Your task to perform on an android device: clear all cookies in the chrome app Image 0: 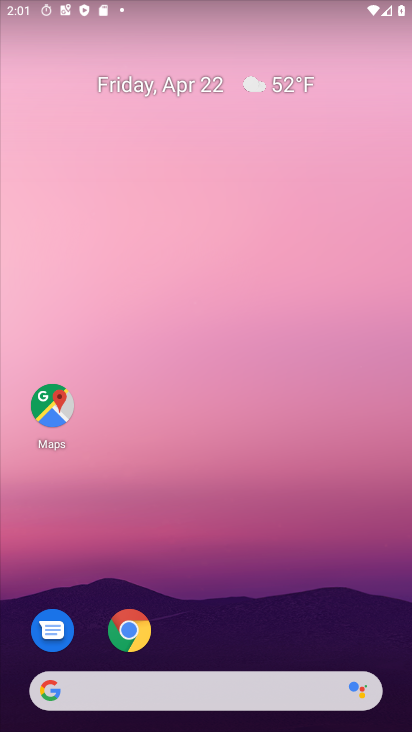
Step 0: click (127, 624)
Your task to perform on an android device: clear all cookies in the chrome app Image 1: 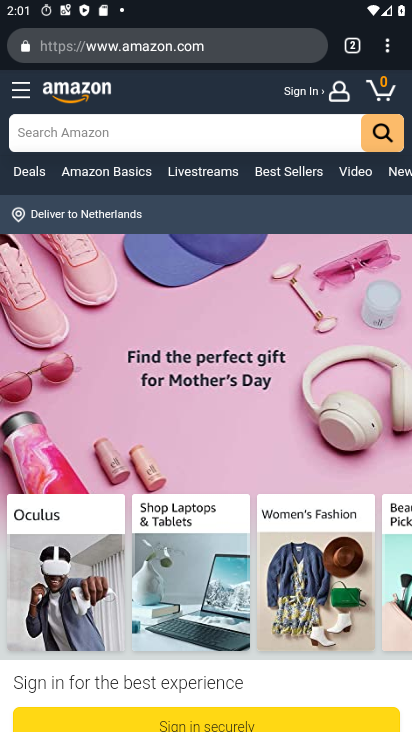
Step 1: click (384, 36)
Your task to perform on an android device: clear all cookies in the chrome app Image 2: 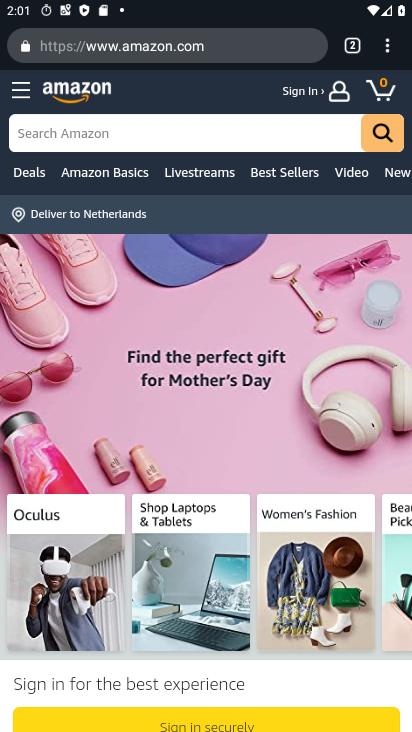
Step 2: click (388, 41)
Your task to perform on an android device: clear all cookies in the chrome app Image 3: 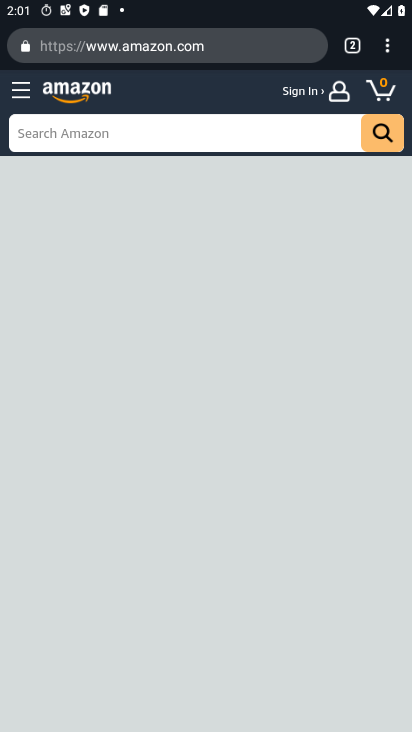
Step 3: click (388, 41)
Your task to perform on an android device: clear all cookies in the chrome app Image 4: 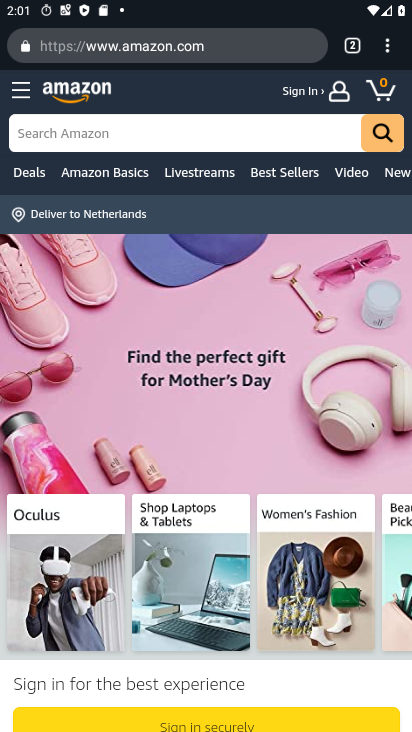
Step 4: click (384, 47)
Your task to perform on an android device: clear all cookies in the chrome app Image 5: 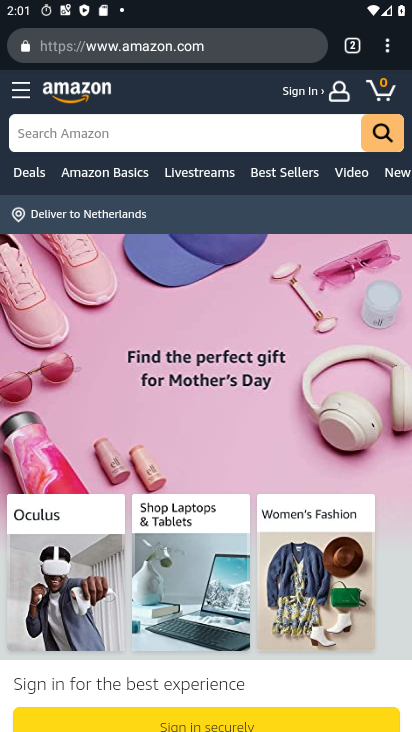
Step 5: click (384, 47)
Your task to perform on an android device: clear all cookies in the chrome app Image 6: 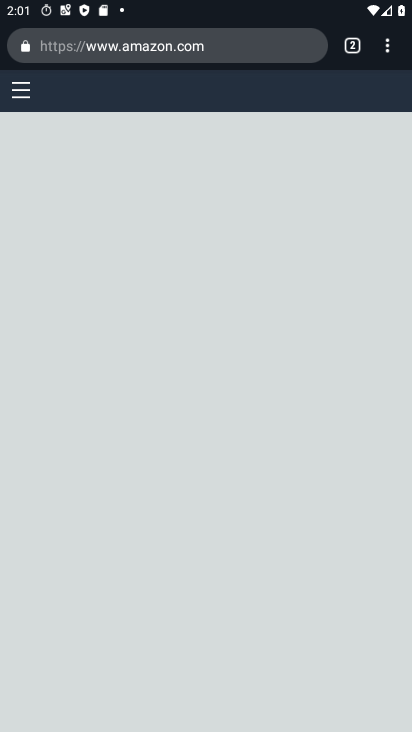
Step 6: click (384, 47)
Your task to perform on an android device: clear all cookies in the chrome app Image 7: 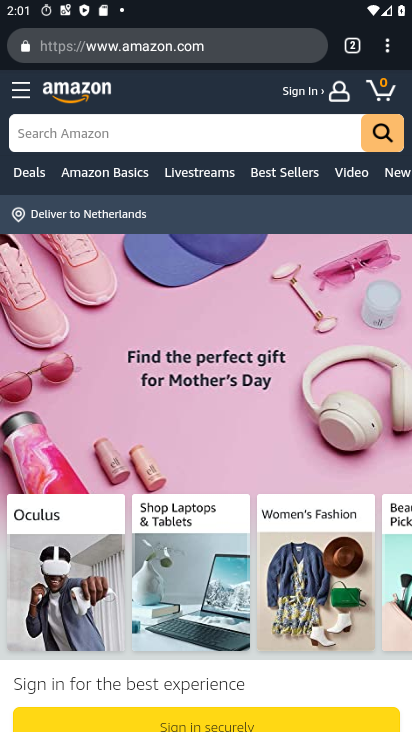
Step 7: click (384, 47)
Your task to perform on an android device: clear all cookies in the chrome app Image 8: 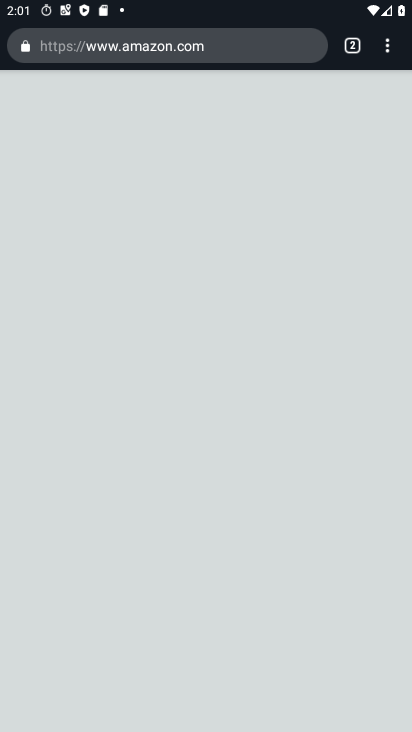
Step 8: click (384, 47)
Your task to perform on an android device: clear all cookies in the chrome app Image 9: 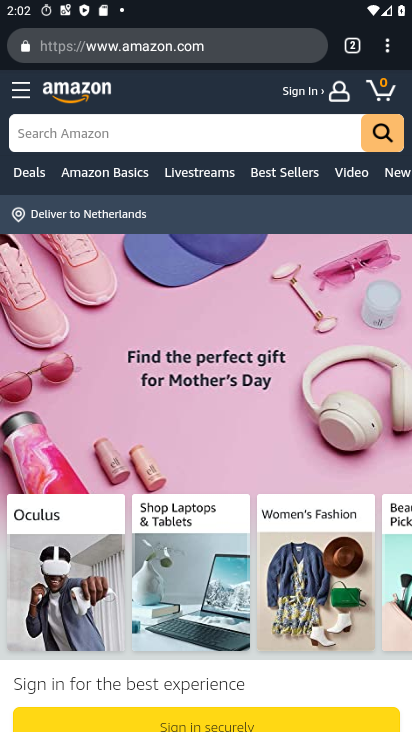
Step 9: click (384, 47)
Your task to perform on an android device: clear all cookies in the chrome app Image 10: 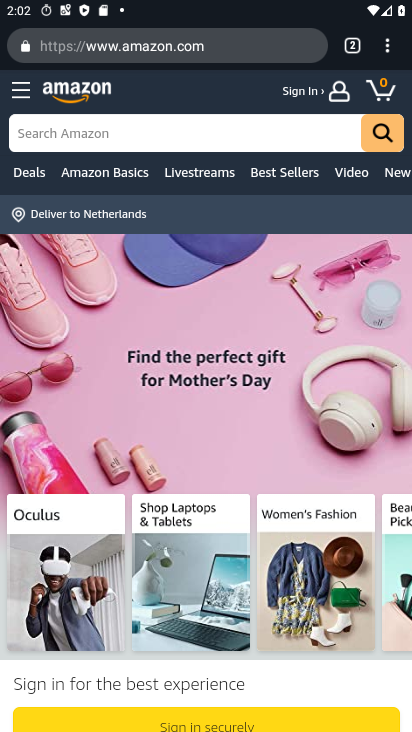
Step 10: click (384, 47)
Your task to perform on an android device: clear all cookies in the chrome app Image 11: 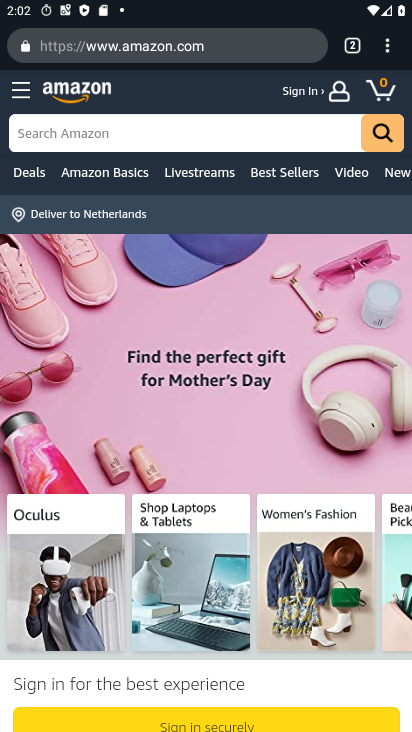
Step 11: click (384, 47)
Your task to perform on an android device: clear all cookies in the chrome app Image 12: 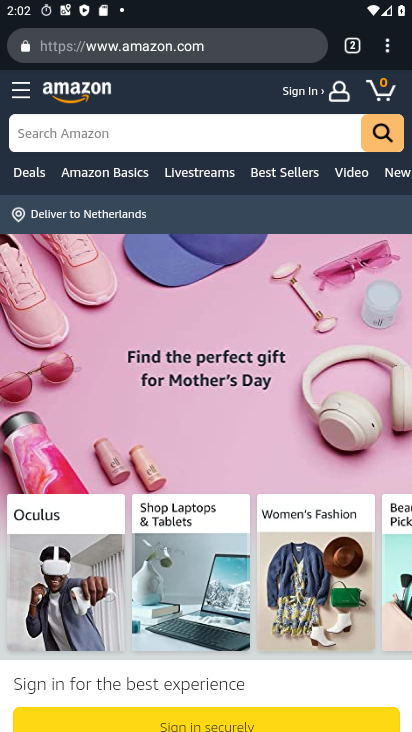
Step 12: click (384, 47)
Your task to perform on an android device: clear all cookies in the chrome app Image 13: 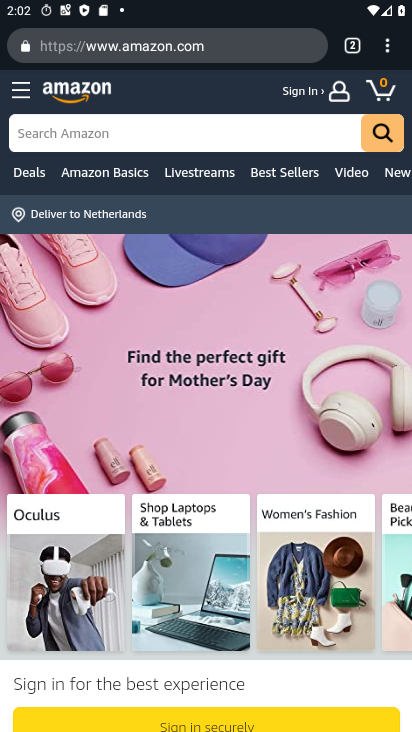
Step 13: click (384, 47)
Your task to perform on an android device: clear all cookies in the chrome app Image 14: 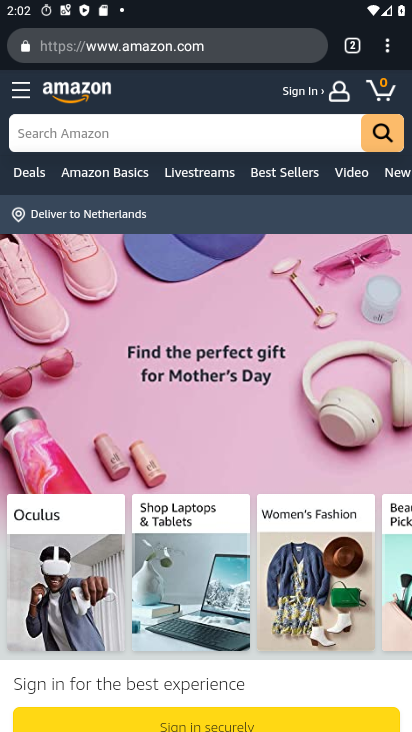
Step 14: click (384, 47)
Your task to perform on an android device: clear all cookies in the chrome app Image 15: 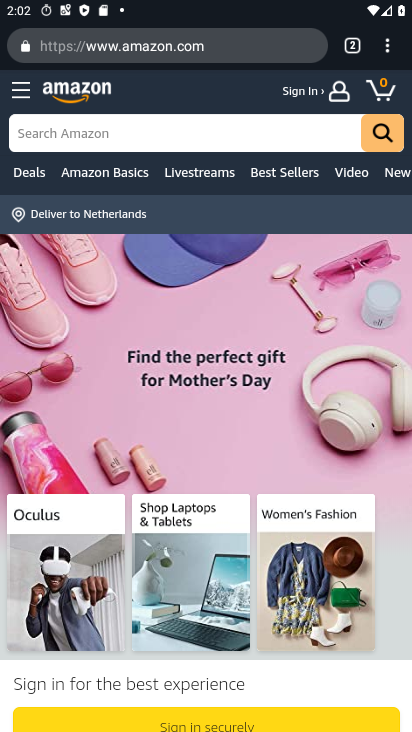
Step 15: click (384, 47)
Your task to perform on an android device: clear all cookies in the chrome app Image 16: 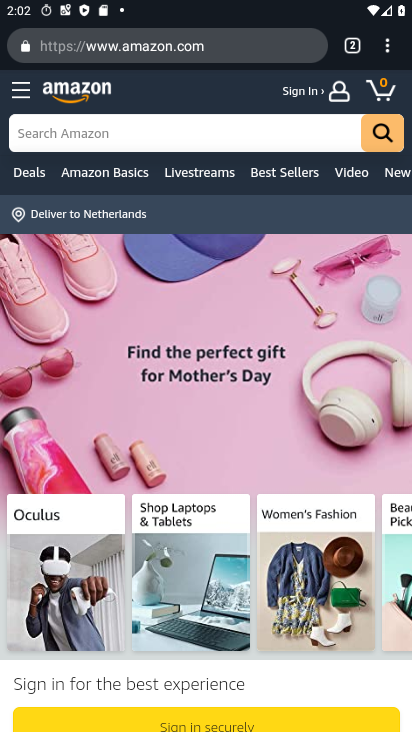
Step 16: click (384, 47)
Your task to perform on an android device: clear all cookies in the chrome app Image 17: 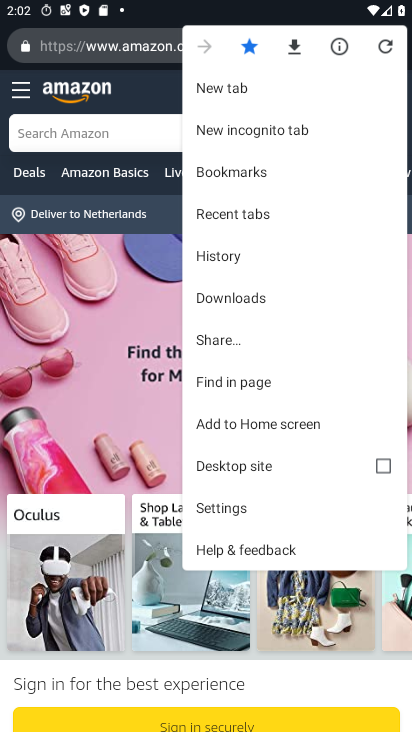
Step 17: click (212, 499)
Your task to perform on an android device: clear all cookies in the chrome app Image 18: 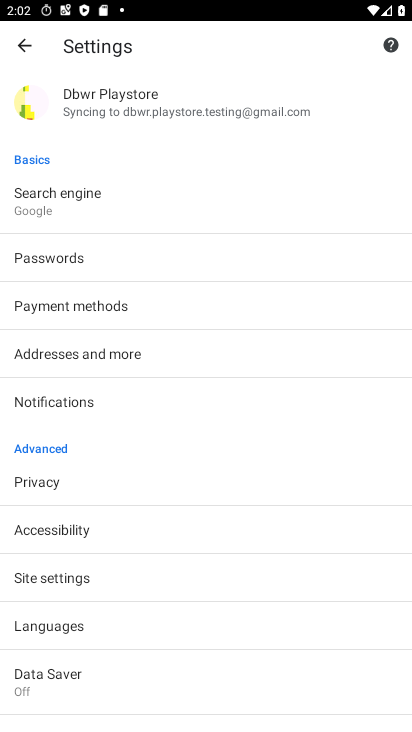
Step 18: click (32, 50)
Your task to perform on an android device: clear all cookies in the chrome app Image 19: 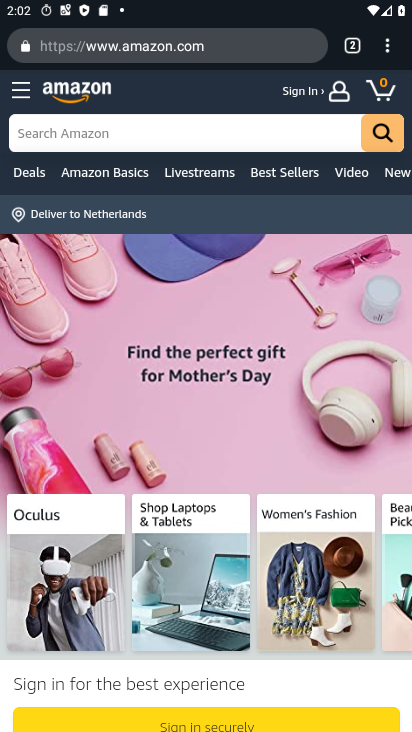
Step 19: click (390, 42)
Your task to perform on an android device: clear all cookies in the chrome app Image 20: 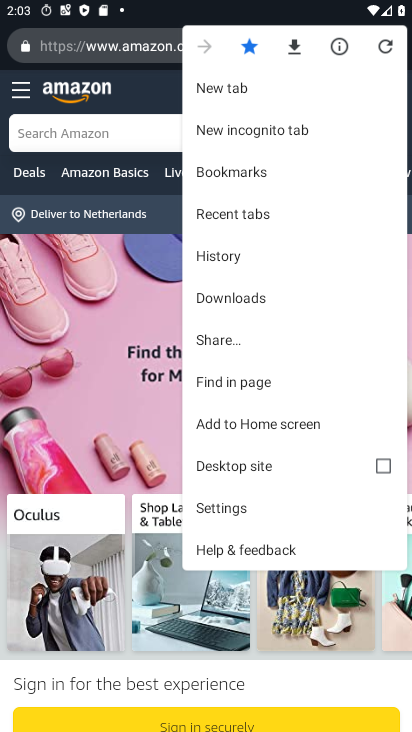
Step 20: click (213, 247)
Your task to perform on an android device: clear all cookies in the chrome app Image 21: 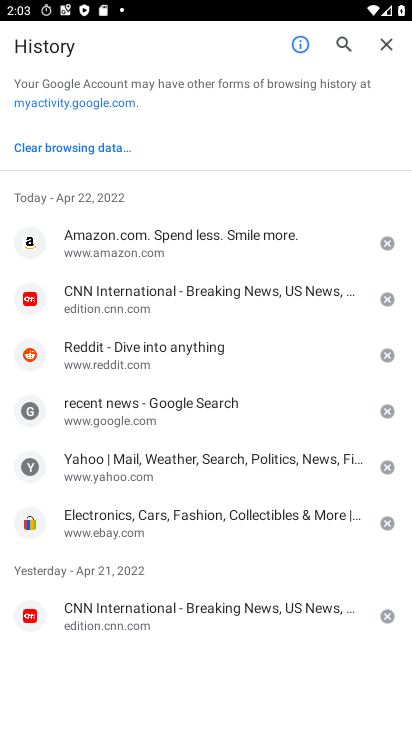
Step 21: click (72, 142)
Your task to perform on an android device: clear all cookies in the chrome app Image 22: 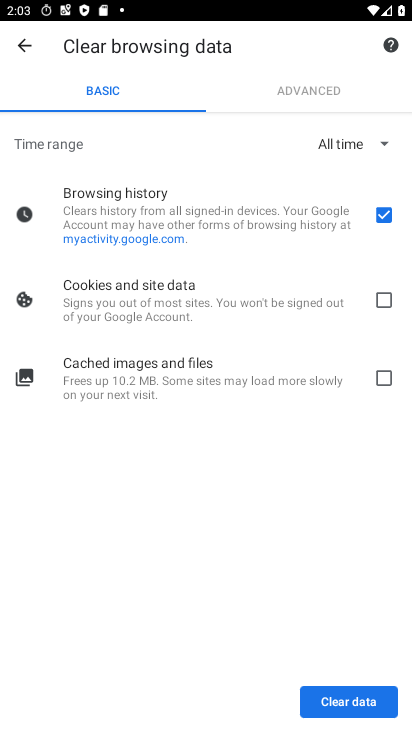
Step 22: click (378, 297)
Your task to perform on an android device: clear all cookies in the chrome app Image 23: 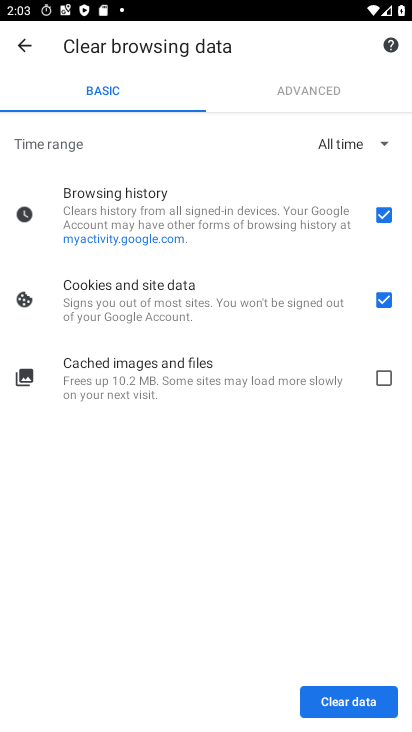
Step 23: click (353, 699)
Your task to perform on an android device: clear all cookies in the chrome app Image 24: 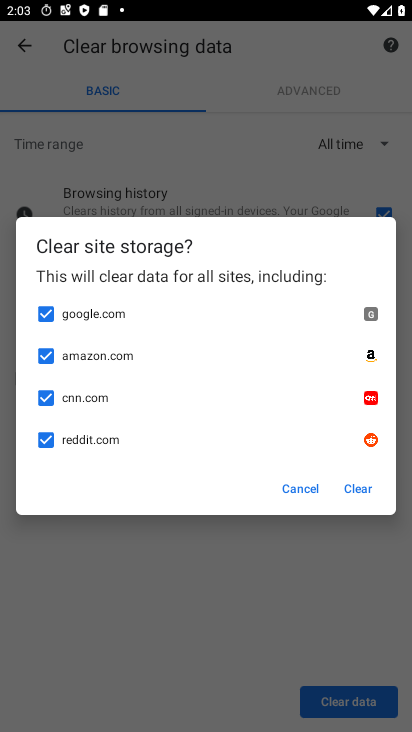
Step 24: click (354, 482)
Your task to perform on an android device: clear all cookies in the chrome app Image 25: 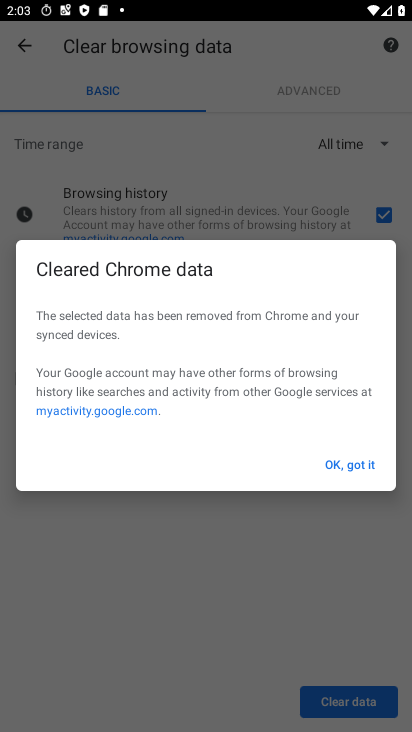
Step 25: click (355, 460)
Your task to perform on an android device: clear all cookies in the chrome app Image 26: 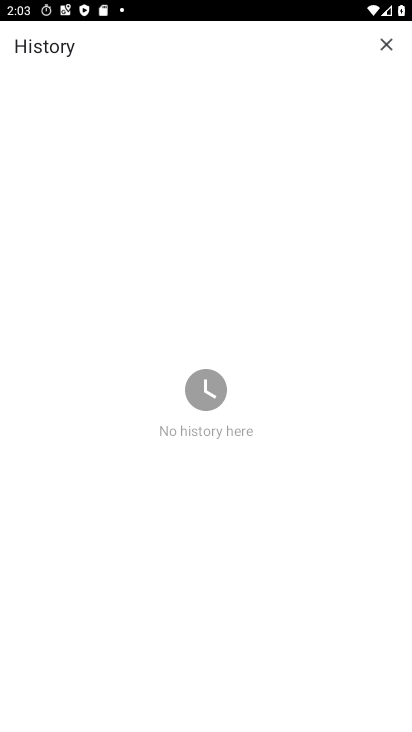
Step 26: task complete